Your task to perform on an android device: turn off airplane mode Image 0: 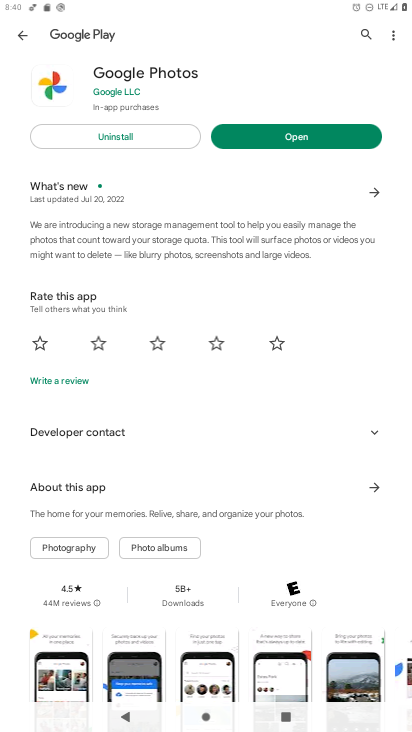
Step 0: press home button
Your task to perform on an android device: turn off airplane mode Image 1: 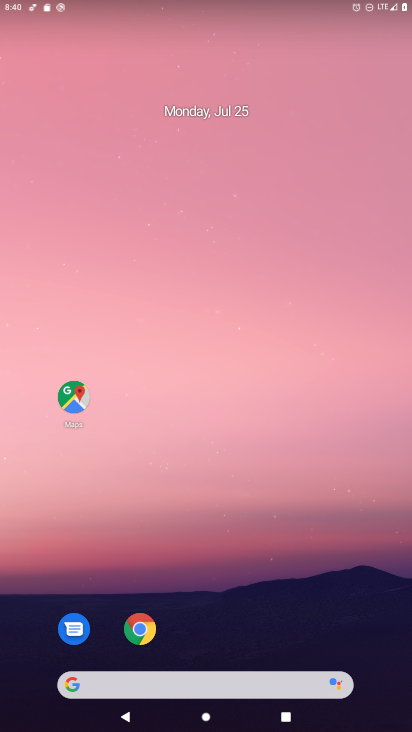
Step 1: drag from (181, 682) to (202, 129)
Your task to perform on an android device: turn off airplane mode Image 2: 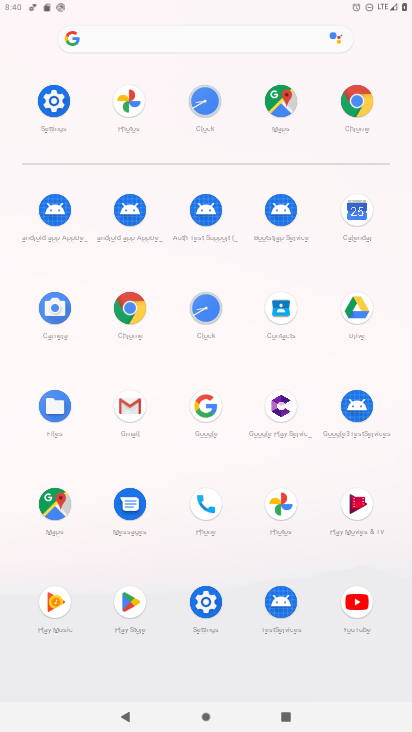
Step 2: click (55, 101)
Your task to perform on an android device: turn off airplane mode Image 3: 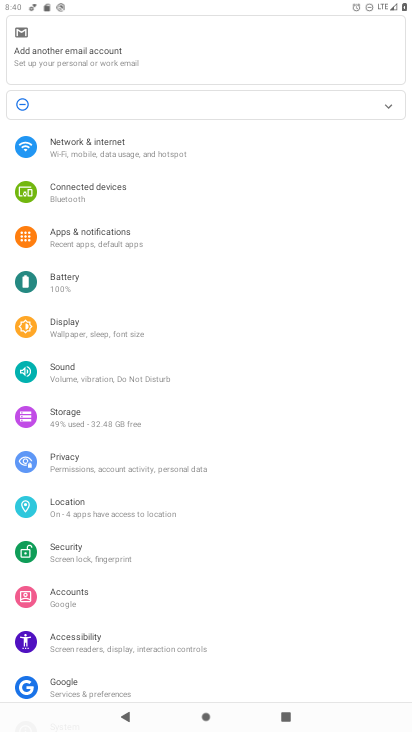
Step 3: click (96, 150)
Your task to perform on an android device: turn off airplane mode Image 4: 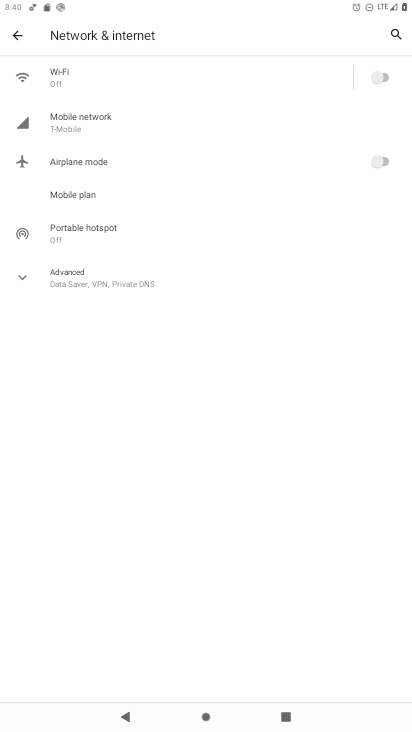
Step 4: task complete